Your task to perform on an android device: Go to calendar. Show me events next week Image 0: 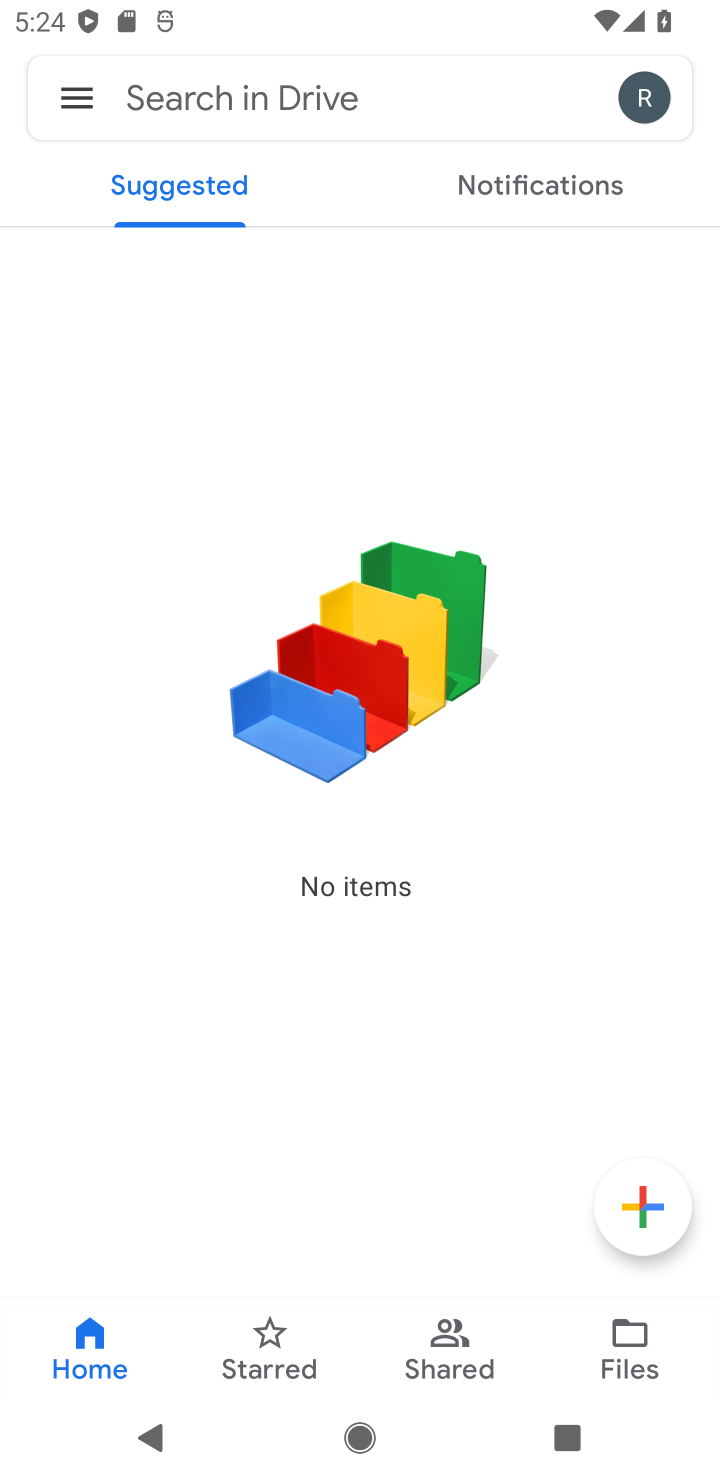
Step 0: press home button
Your task to perform on an android device: Go to calendar. Show me events next week Image 1: 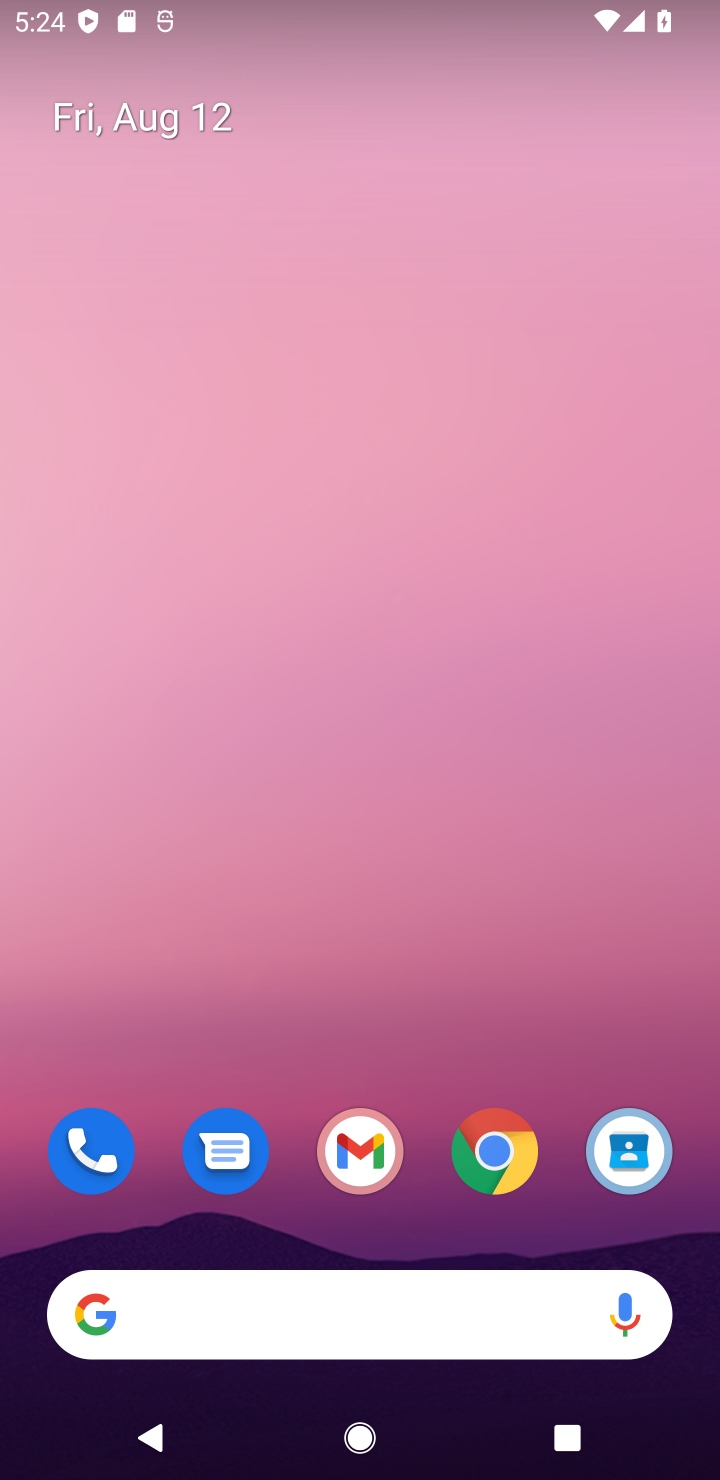
Step 1: drag from (354, 1013) to (368, 280)
Your task to perform on an android device: Go to calendar. Show me events next week Image 2: 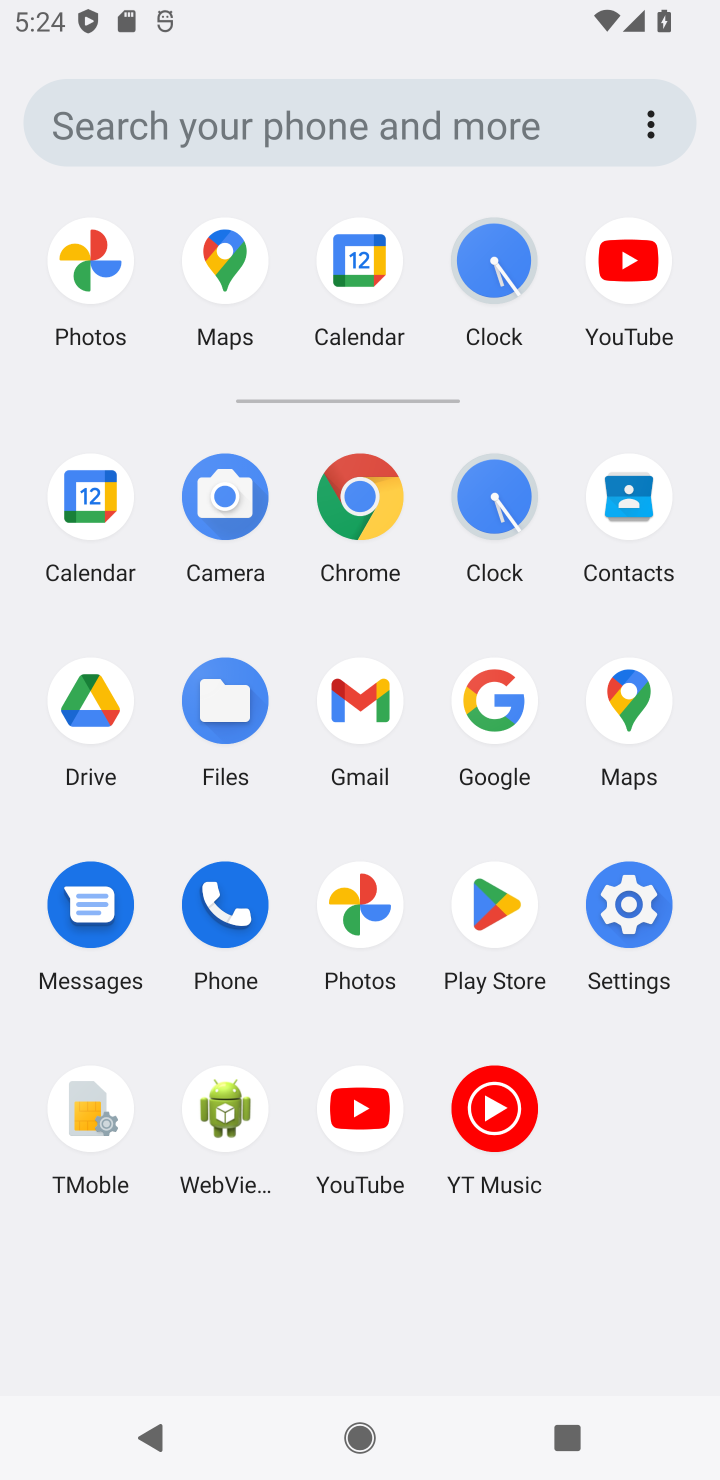
Step 2: click (77, 494)
Your task to perform on an android device: Go to calendar. Show me events next week Image 3: 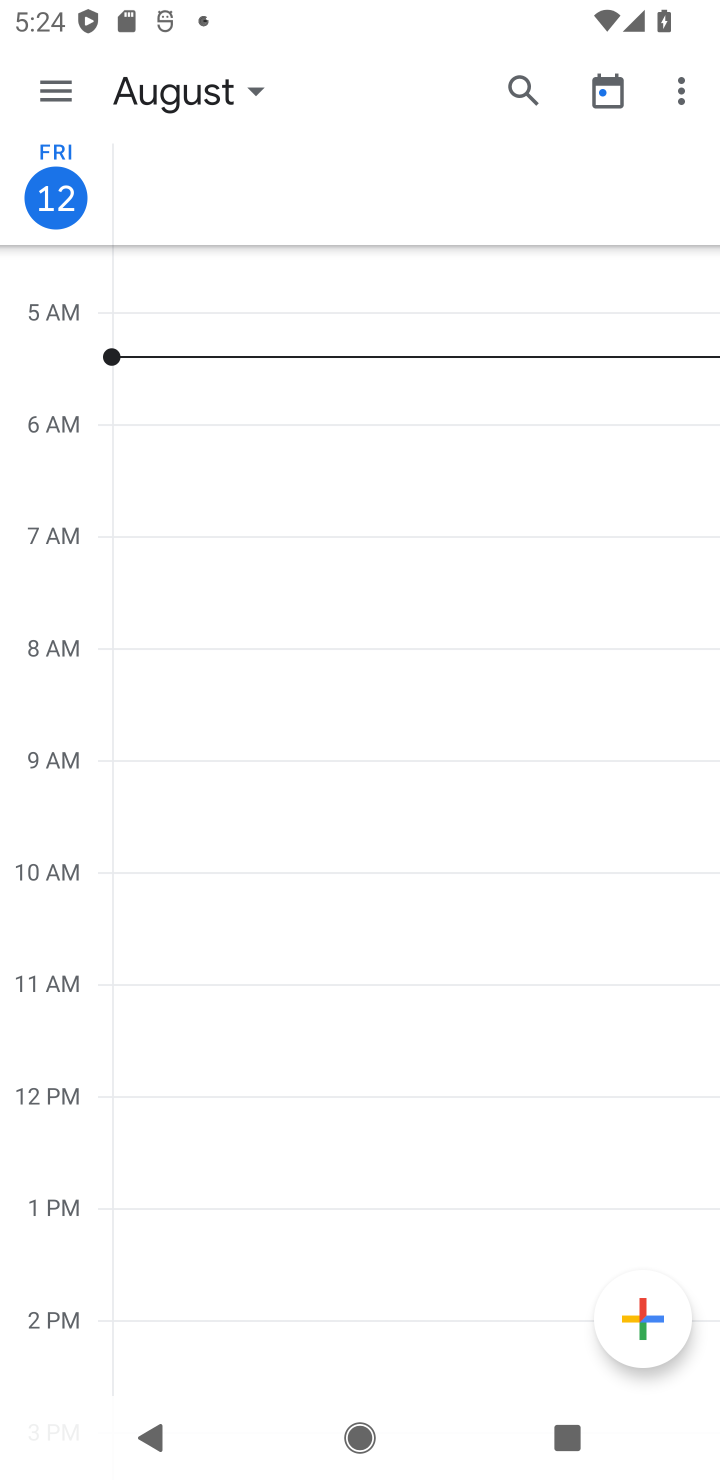
Step 3: click (68, 92)
Your task to perform on an android device: Go to calendar. Show me events next week Image 4: 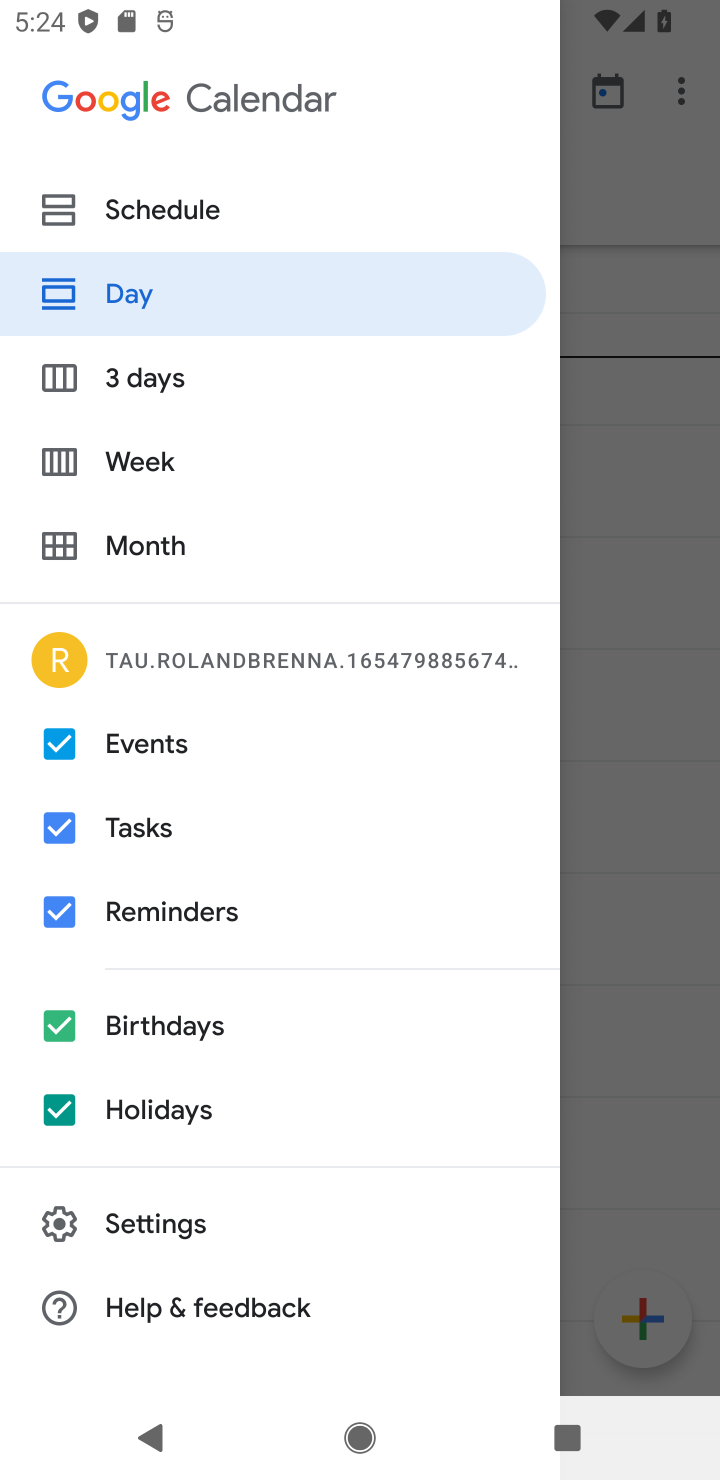
Step 4: click (153, 473)
Your task to perform on an android device: Go to calendar. Show me events next week Image 5: 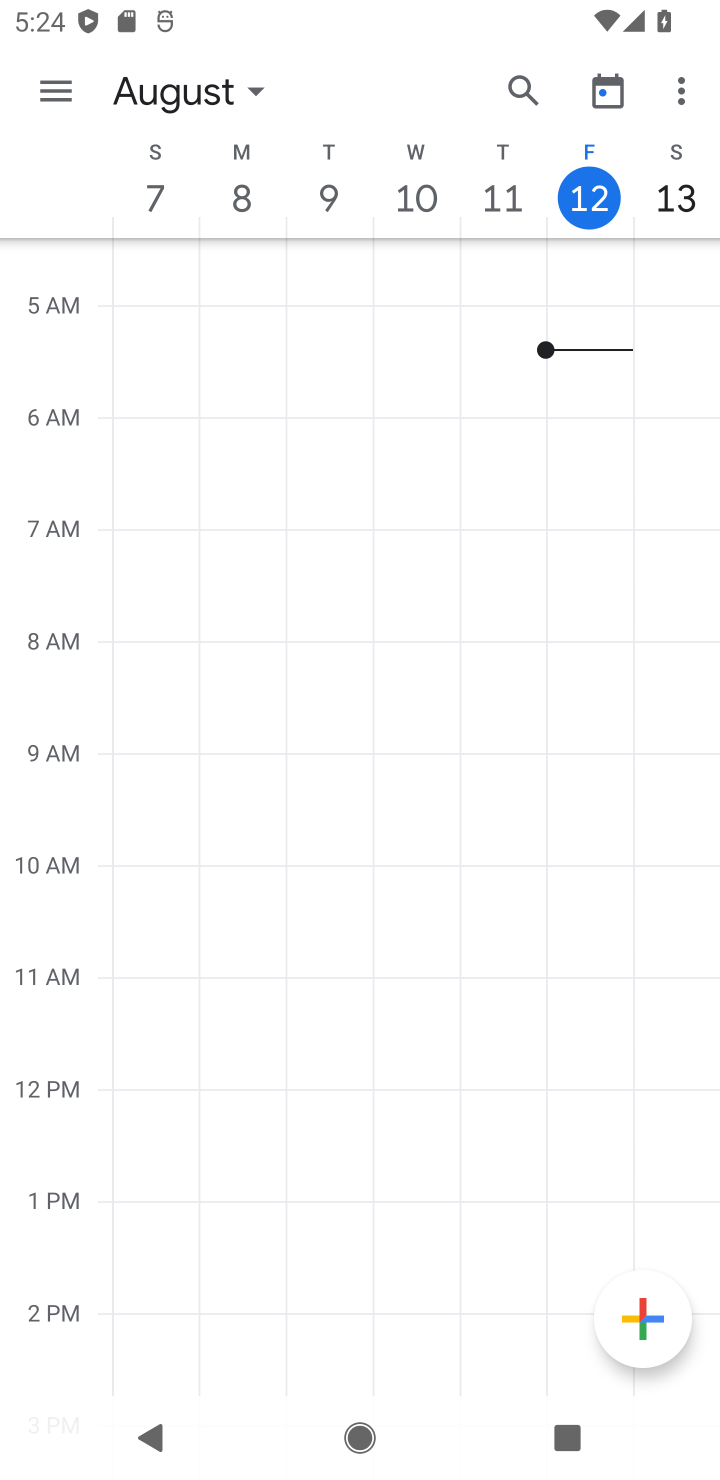
Step 5: click (175, 103)
Your task to perform on an android device: Go to calendar. Show me events next week Image 6: 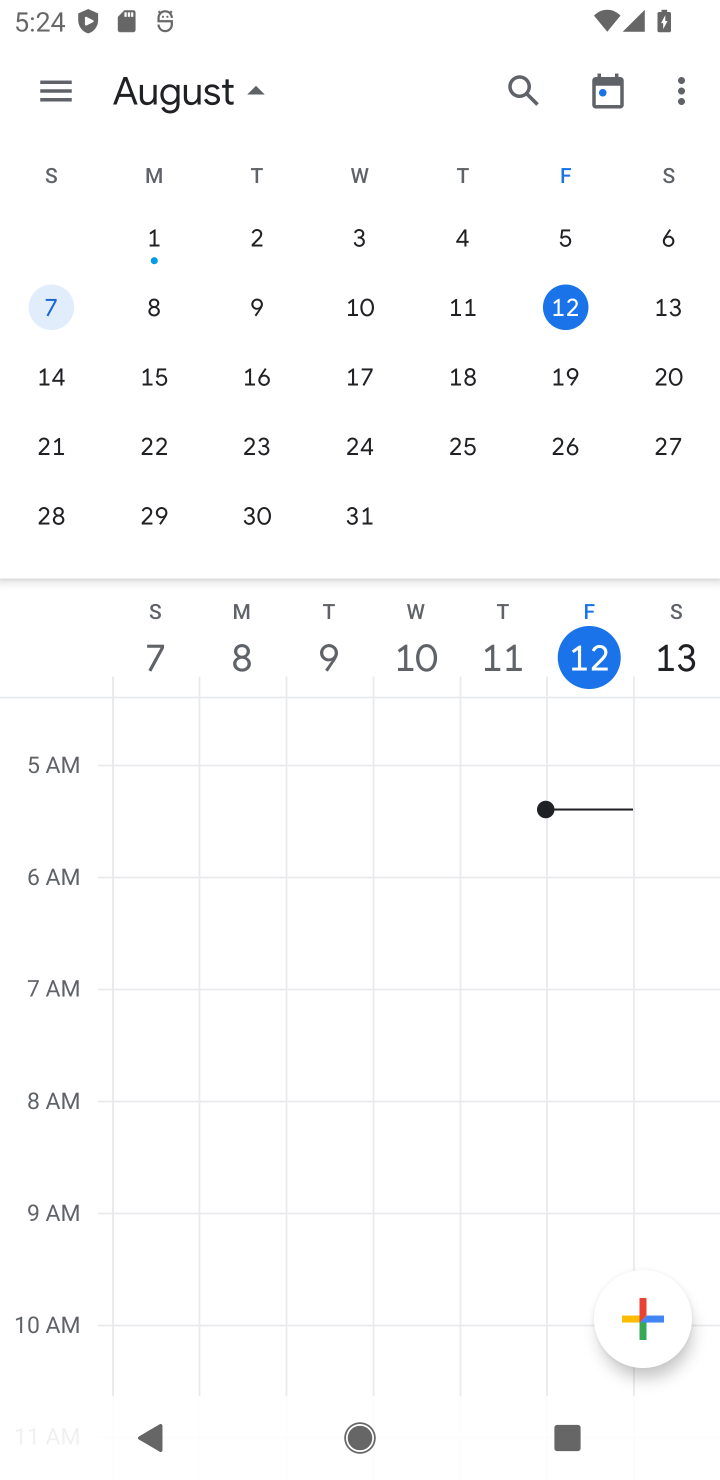
Step 6: click (462, 376)
Your task to perform on an android device: Go to calendar. Show me events next week Image 7: 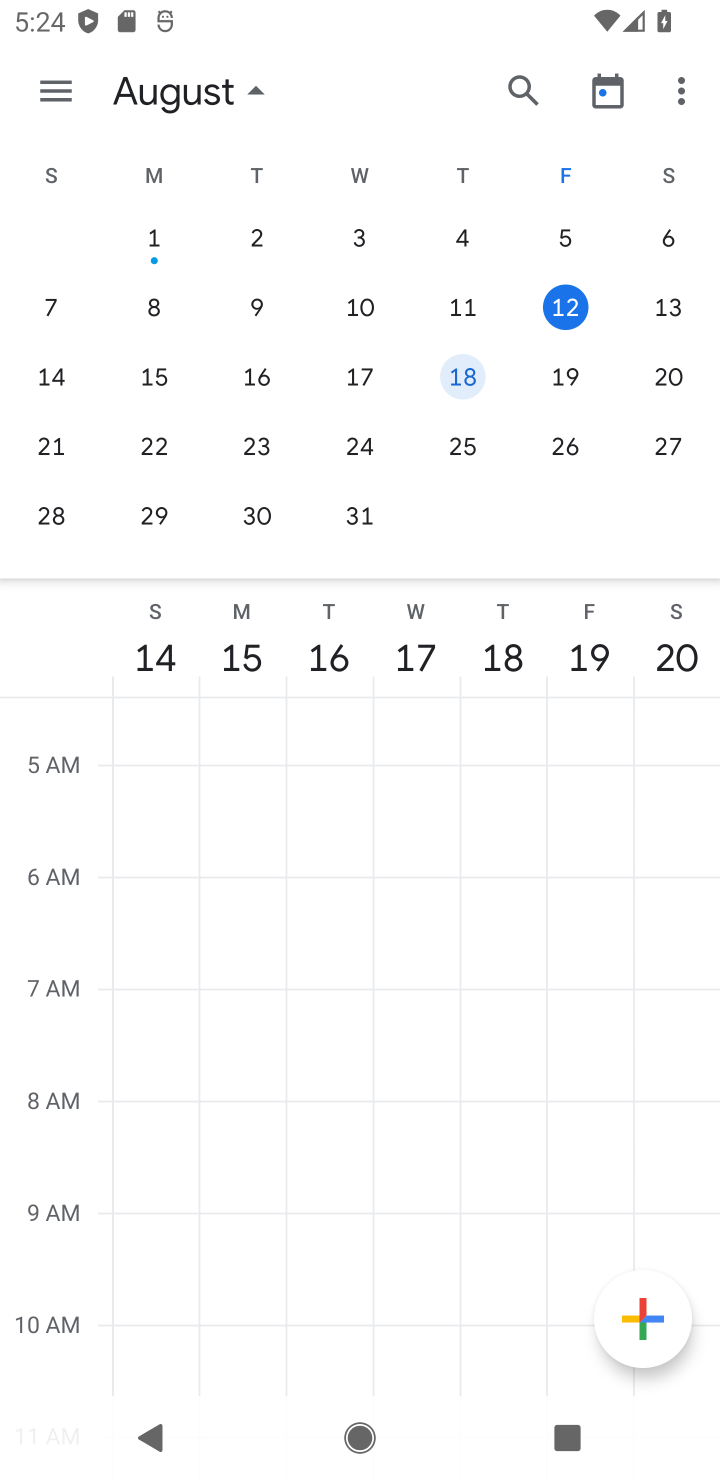
Step 7: task complete